Your task to perform on an android device: Open ESPN.com Image 0: 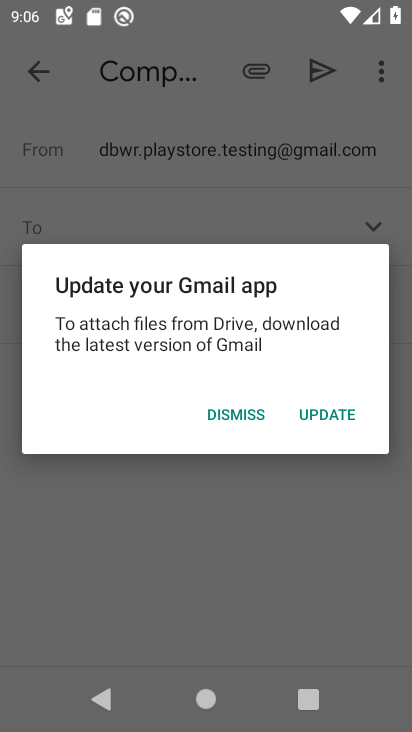
Step 0: click (226, 409)
Your task to perform on an android device: Open ESPN.com Image 1: 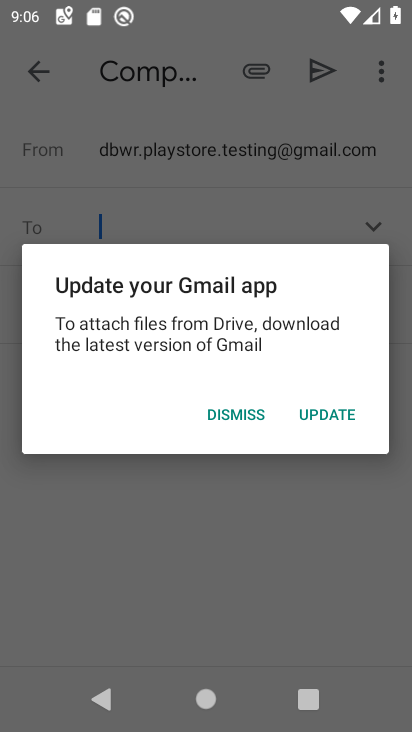
Step 1: click (227, 410)
Your task to perform on an android device: Open ESPN.com Image 2: 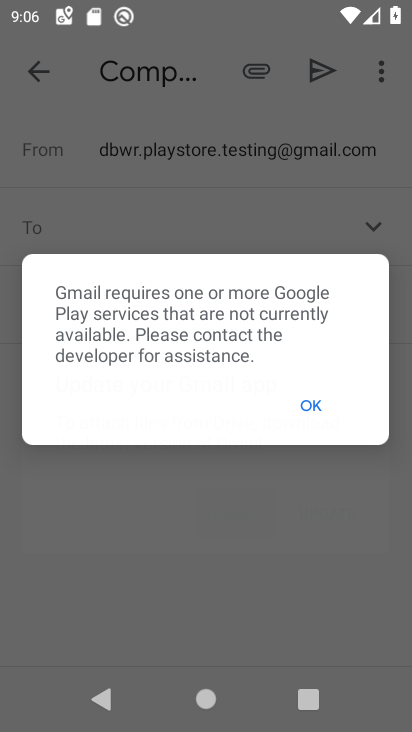
Step 2: click (227, 410)
Your task to perform on an android device: Open ESPN.com Image 3: 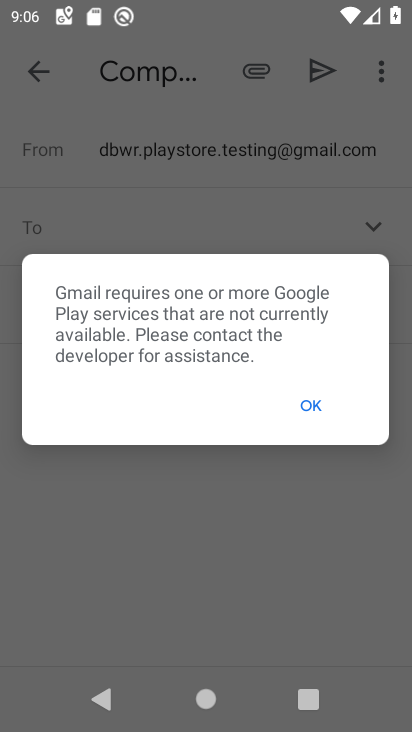
Step 3: click (36, 70)
Your task to perform on an android device: Open ESPN.com Image 4: 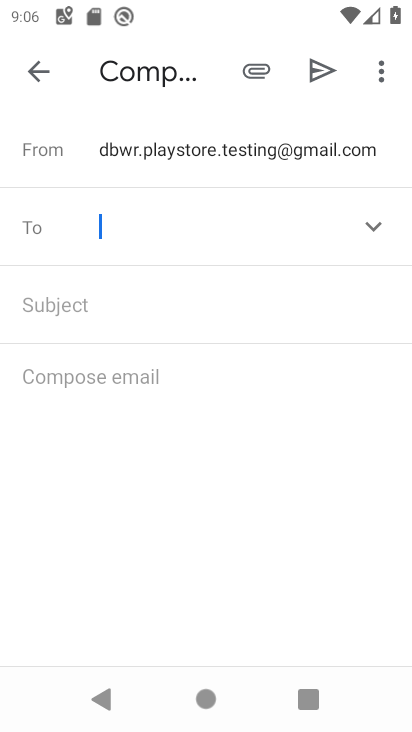
Step 4: click (38, 81)
Your task to perform on an android device: Open ESPN.com Image 5: 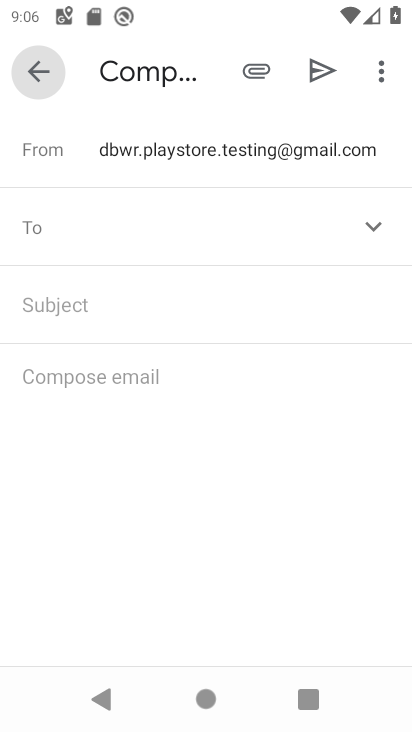
Step 5: click (38, 81)
Your task to perform on an android device: Open ESPN.com Image 6: 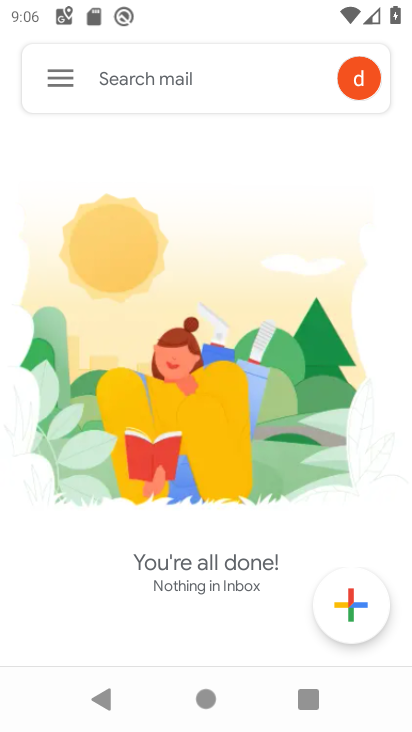
Step 6: press back button
Your task to perform on an android device: Open ESPN.com Image 7: 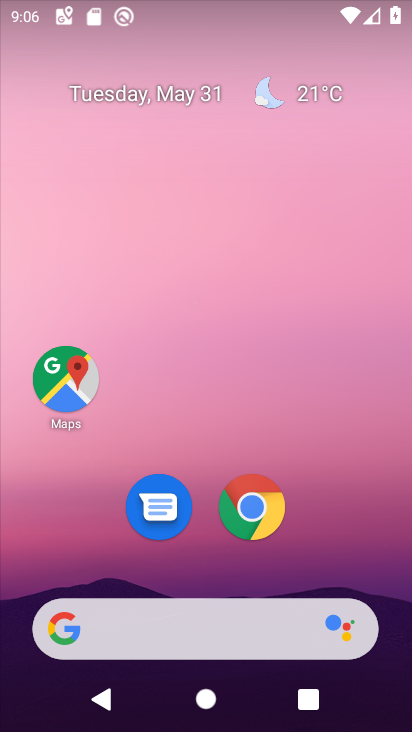
Step 7: drag from (269, 685) to (199, 68)
Your task to perform on an android device: Open ESPN.com Image 8: 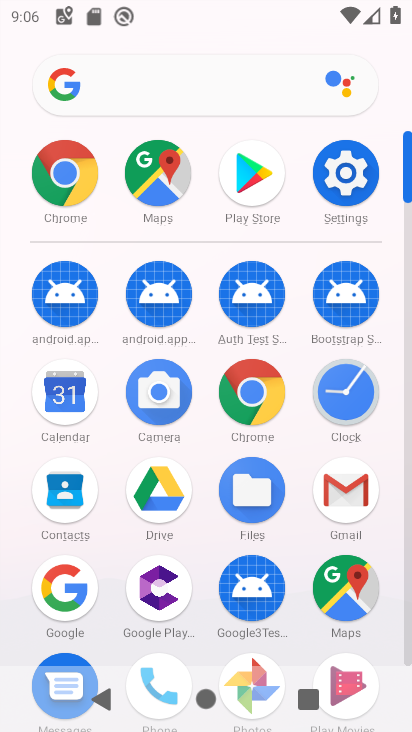
Step 8: click (56, 177)
Your task to perform on an android device: Open ESPN.com Image 9: 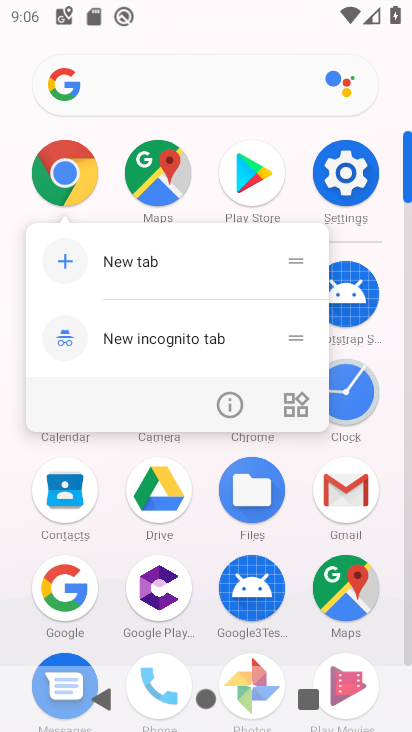
Step 9: click (59, 173)
Your task to perform on an android device: Open ESPN.com Image 10: 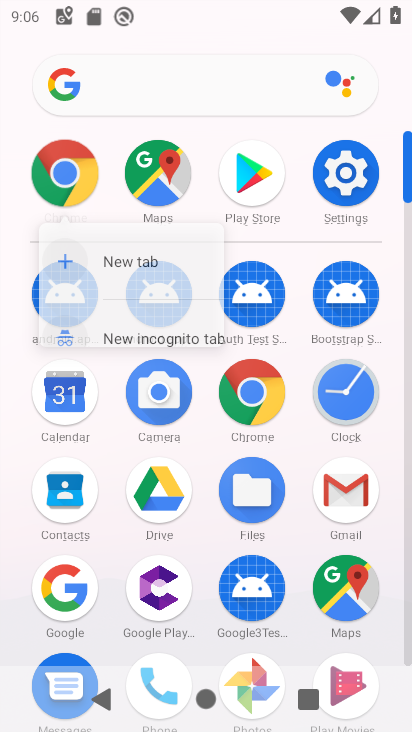
Step 10: click (59, 173)
Your task to perform on an android device: Open ESPN.com Image 11: 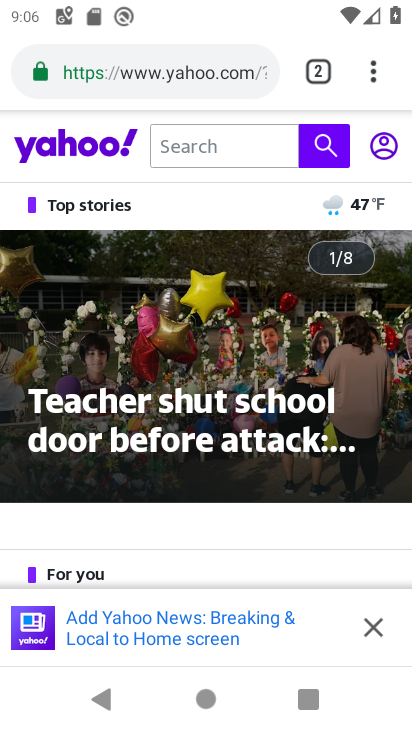
Step 11: drag from (370, 76) to (100, 140)
Your task to perform on an android device: Open ESPN.com Image 12: 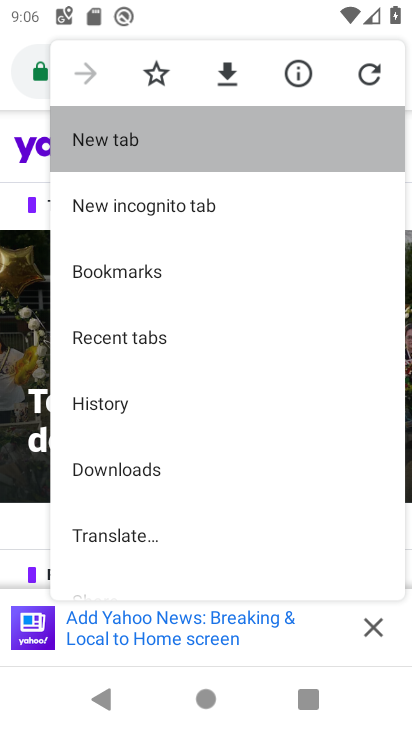
Step 12: click (100, 140)
Your task to perform on an android device: Open ESPN.com Image 13: 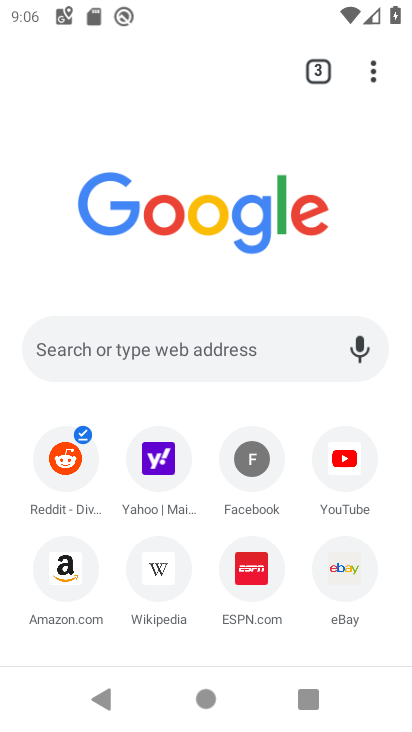
Step 13: click (254, 575)
Your task to perform on an android device: Open ESPN.com Image 14: 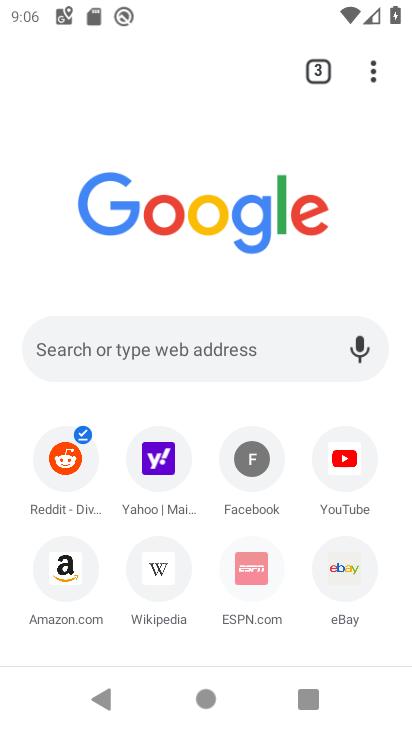
Step 14: click (254, 578)
Your task to perform on an android device: Open ESPN.com Image 15: 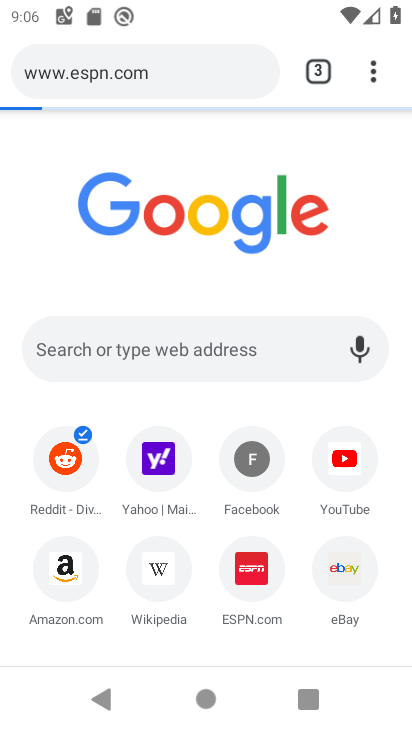
Step 15: click (255, 579)
Your task to perform on an android device: Open ESPN.com Image 16: 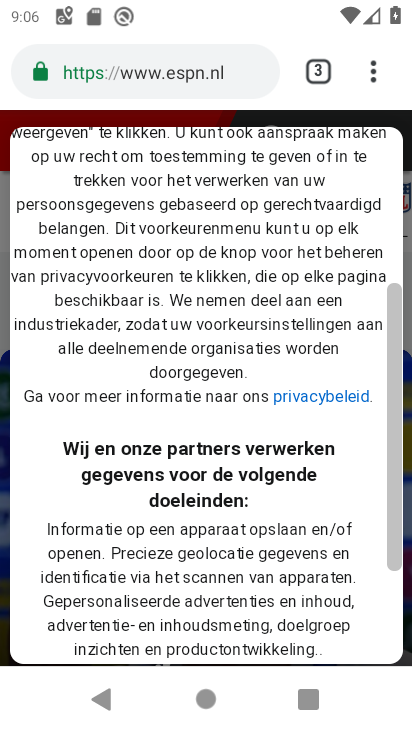
Step 16: task complete